Your task to perform on an android device: open device folders in google photos Image 0: 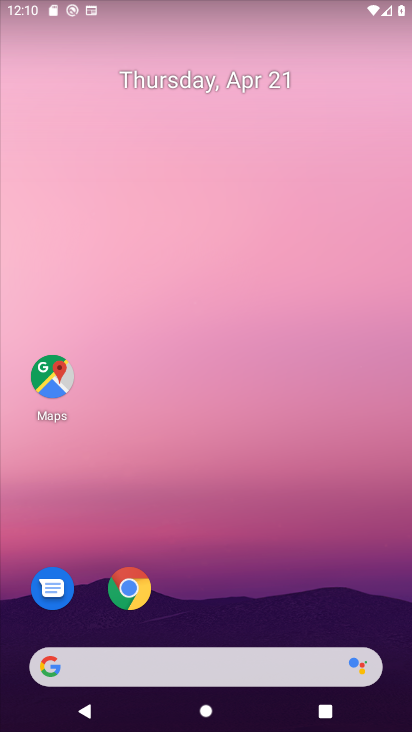
Step 0: drag from (208, 624) to (221, 75)
Your task to perform on an android device: open device folders in google photos Image 1: 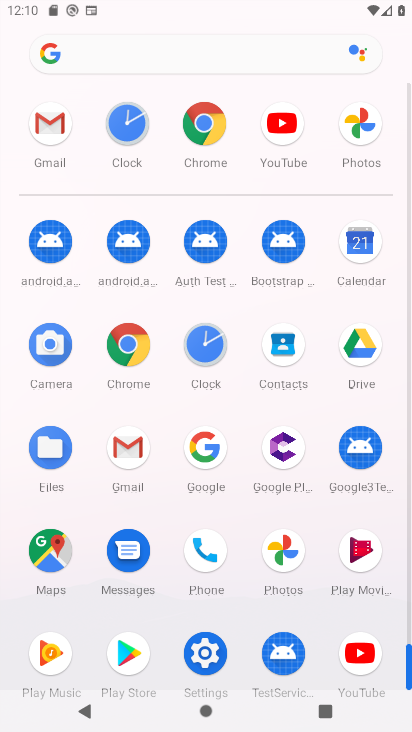
Step 1: click (281, 543)
Your task to perform on an android device: open device folders in google photos Image 2: 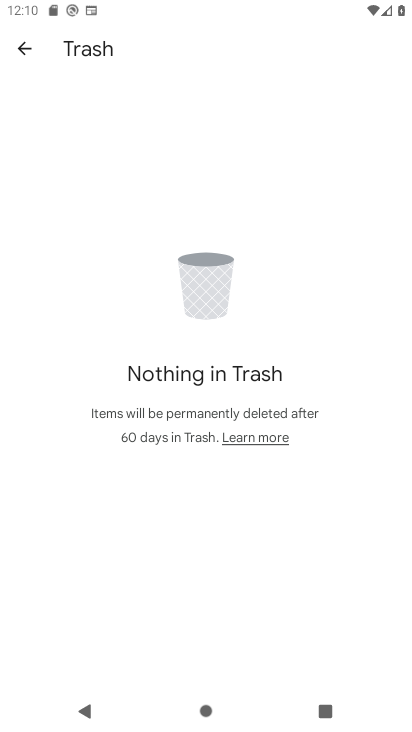
Step 2: click (30, 47)
Your task to perform on an android device: open device folders in google photos Image 3: 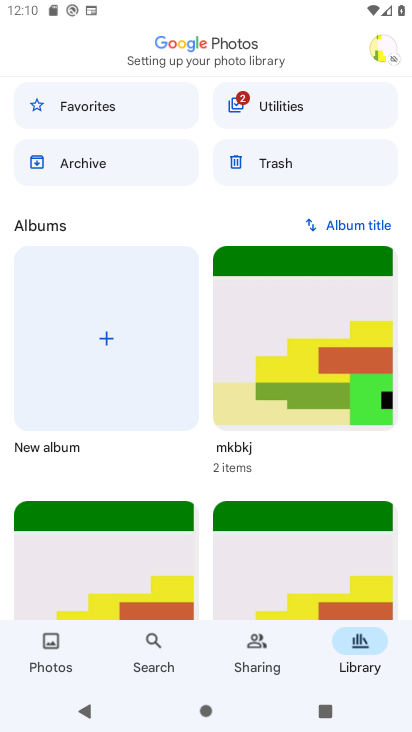
Step 3: click (152, 645)
Your task to perform on an android device: open device folders in google photos Image 4: 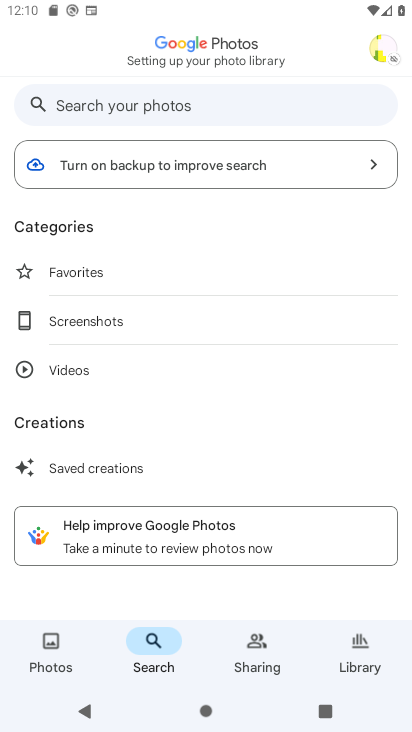
Step 4: drag from (126, 441) to (145, 168)
Your task to perform on an android device: open device folders in google photos Image 5: 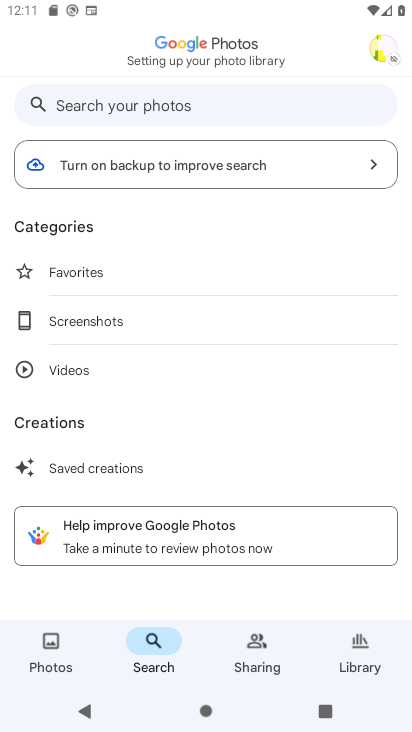
Step 5: click (146, 98)
Your task to perform on an android device: open device folders in google photos Image 6: 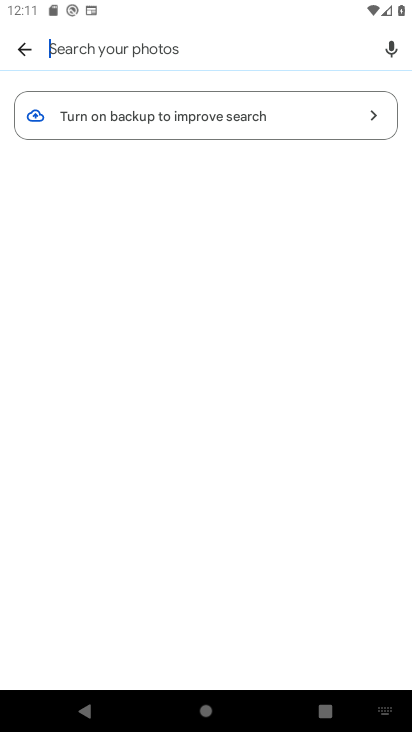
Step 6: type "device"
Your task to perform on an android device: open device folders in google photos Image 7: 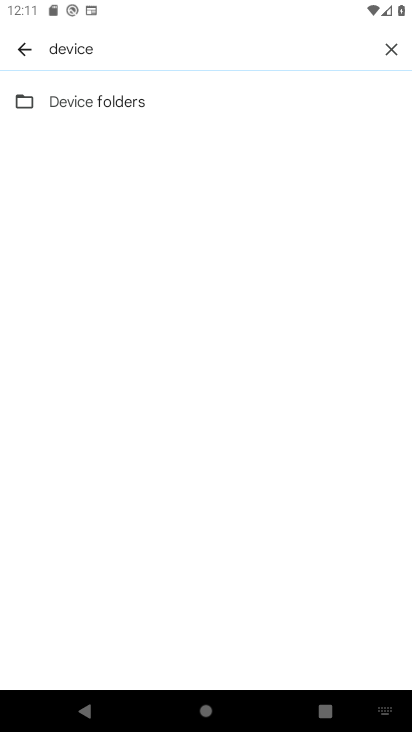
Step 7: click (154, 99)
Your task to perform on an android device: open device folders in google photos Image 8: 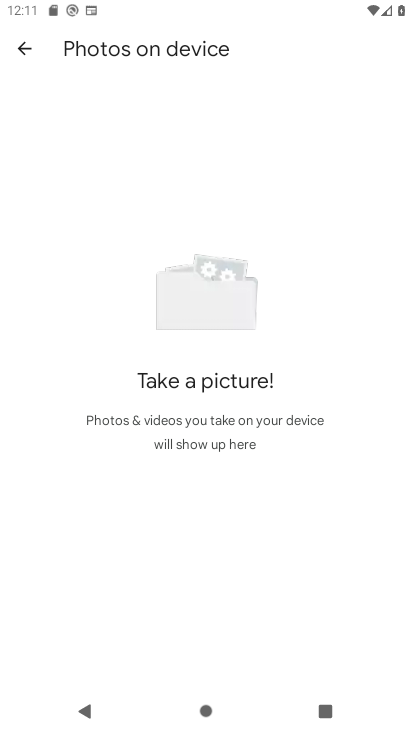
Step 8: task complete